Your task to perform on an android device: turn on data saver in the chrome app Image 0: 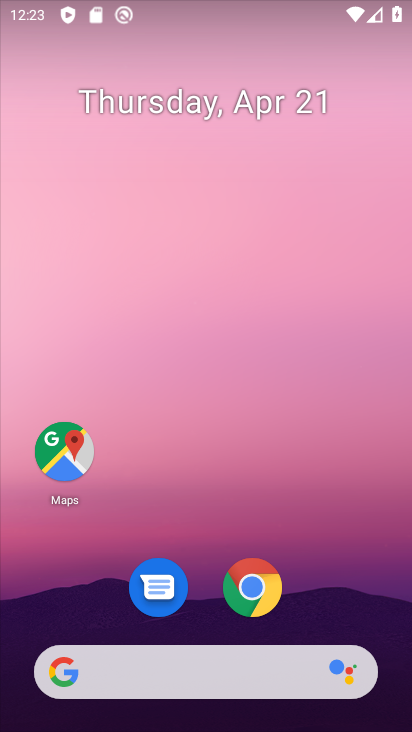
Step 0: click (252, 590)
Your task to perform on an android device: turn on data saver in the chrome app Image 1: 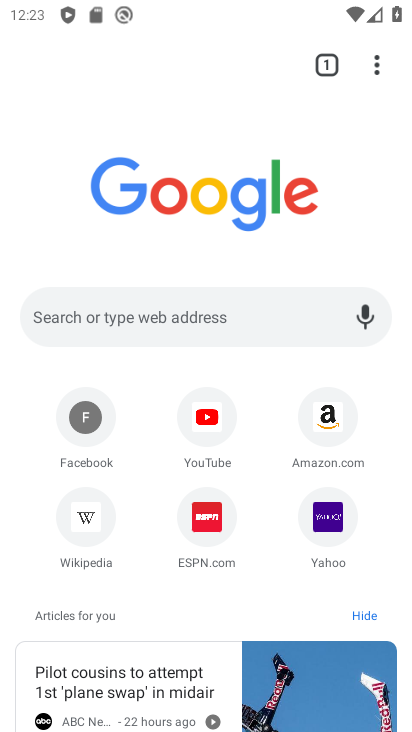
Step 1: click (370, 64)
Your task to perform on an android device: turn on data saver in the chrome app Image 2: 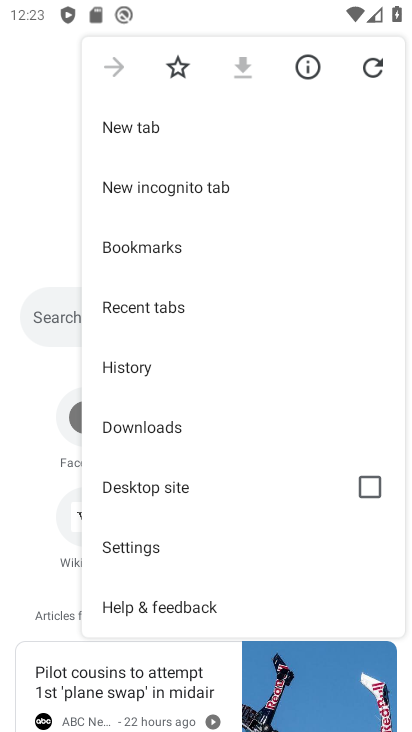
Step 2: click (142, 549)
Your task to perform on an android device: turn on data saver in the chrome app Image 3: 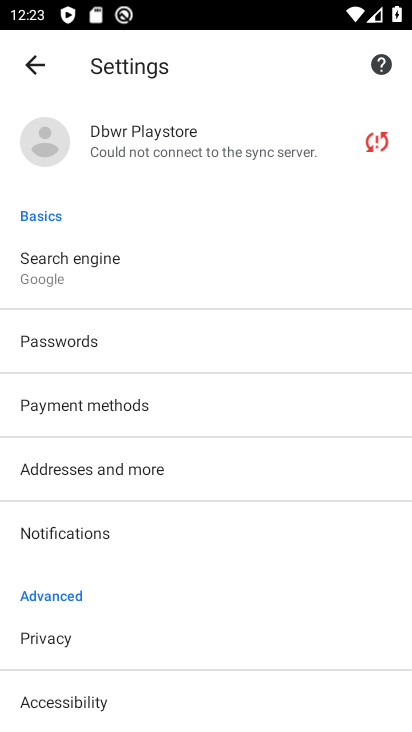
Step 3: drag from (162, 631) to (156, 284)
Your task to perform on an android device: turn on data saver in the chrome app Image 4: 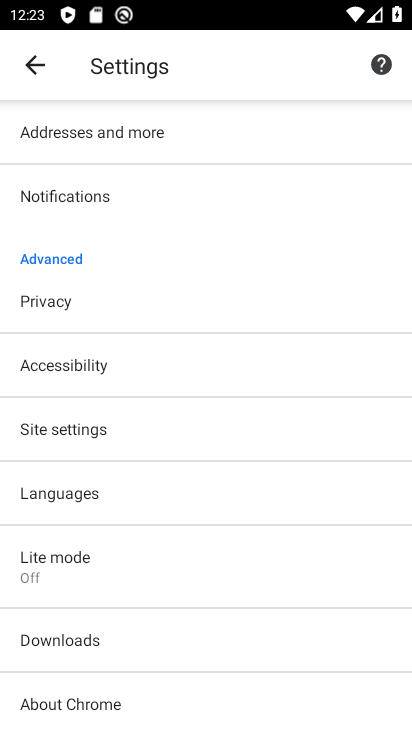
Step 4: click (76, 557)
Your task to perform on an android device: turn on data saver in the chrome app Image 5: 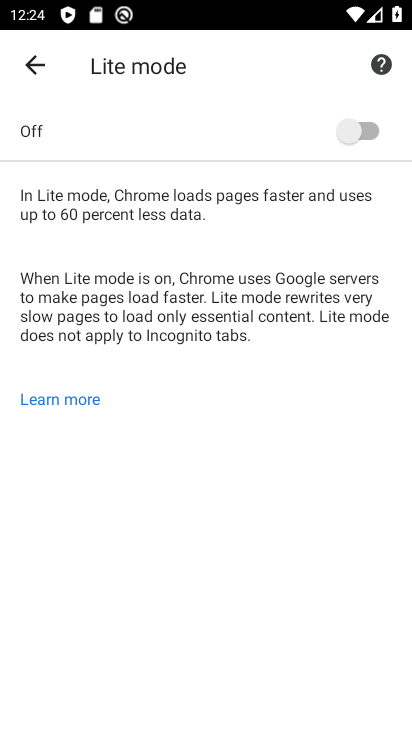
Step 5: click (360, 133)
Your task to perform on an android device: turn on data saver in the chrome app Image 6: 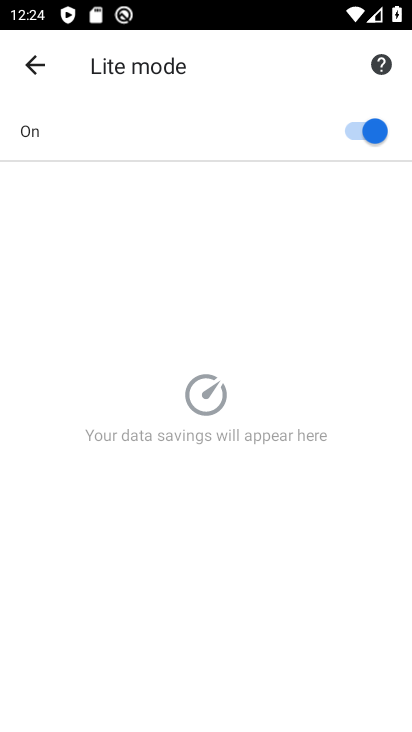
Step 6: task complete